Your task to perform on an android device: Go to Google Image 0: 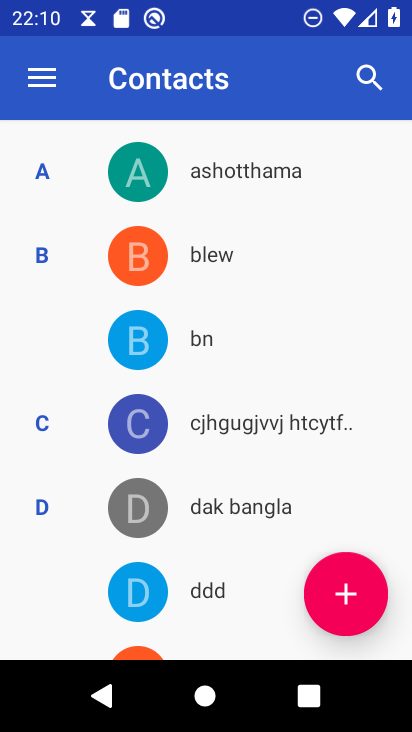
Step 0: press home button
Your task to perform on an android device: Go to Google Image 1: 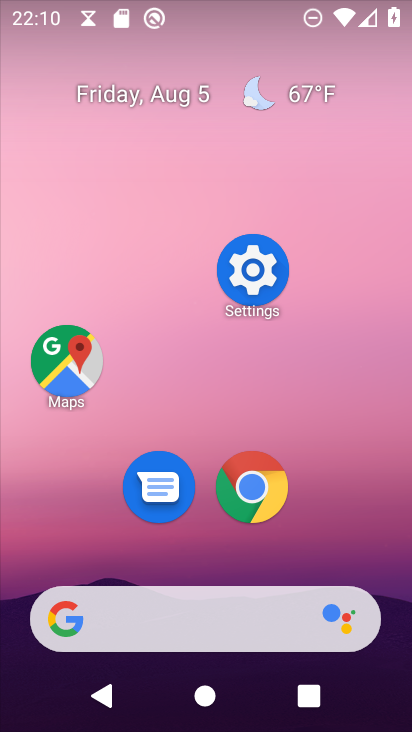
Step 1: drag from (202, 613) to (254, 131)
Your task to perform on an android device: Go to Google Image 2: 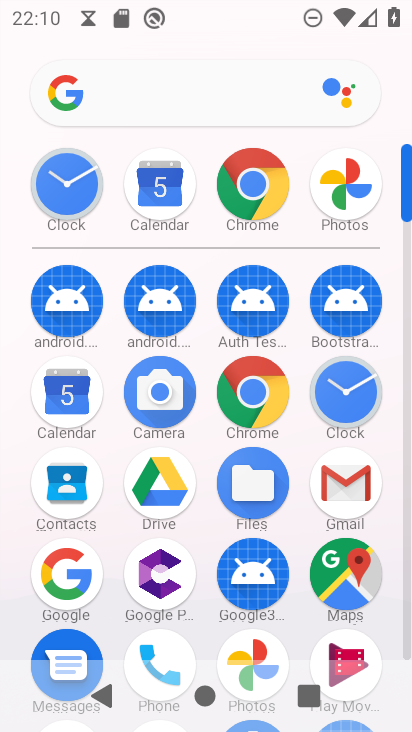
Step 2: click (63, 582)
Your task to perform on an android device: Go to Google Image 3: 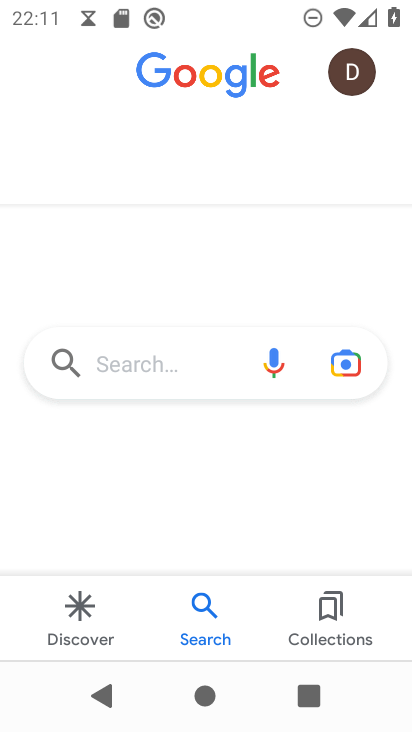
Step 3: task complete